Your task to perform on an android device: Open Google Maps and go to "Timeline" Image 0: 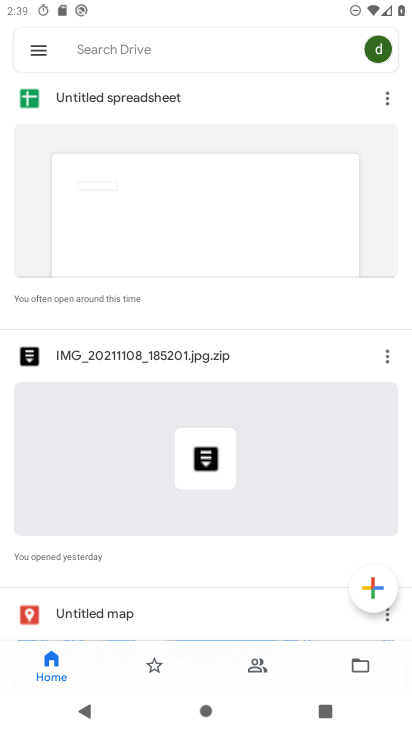
Step 0: press home button
Your task to perform on an android device: Open Google Maps and go to "Timeline" Image 1: 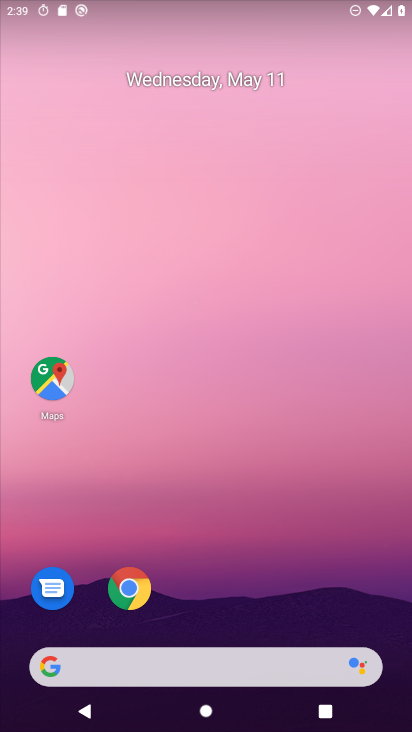
Step 1: click (58, 380)
Your task to perform on an android device: Open Google Maps and go to "Timeline" Image 2: 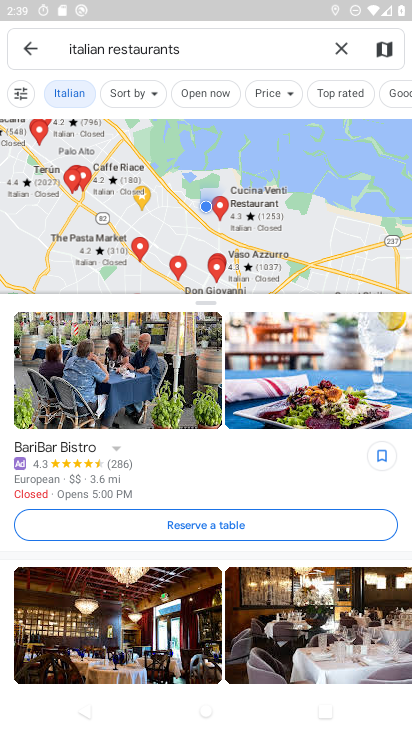
Step 2: click (341, 53)
Your task to perform on an android device: Open Google Maps and go to "Timeline" Image 3: 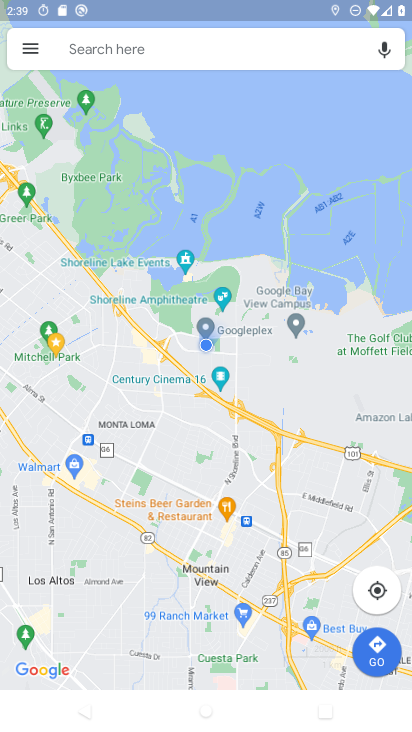
Step 3: click (33, 46)
Your task to perform on an android device: Open Google Maps and go to "Timeline" Image 4: 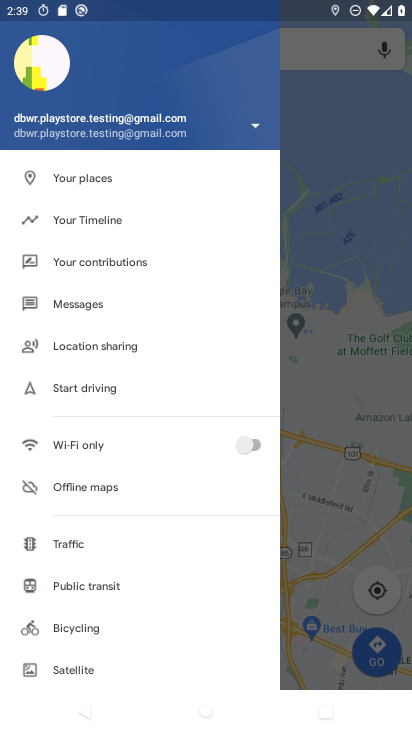
Step 4: click (101, 214)
Your task to perform on an android device: Open Google Maps and go to "Timeline" Image 5: 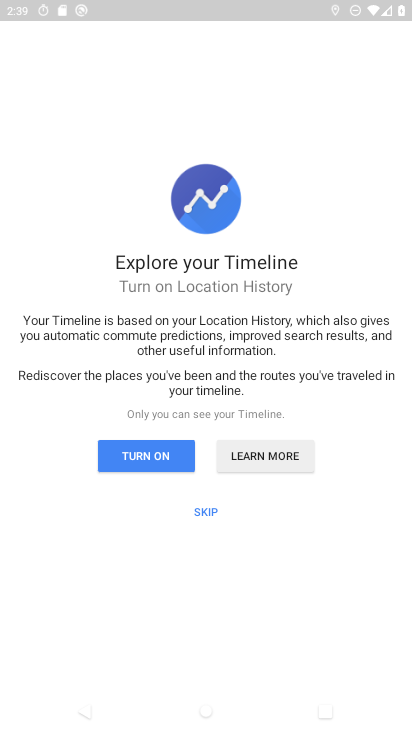
Step 5: click (159, 451)
Your task to perform on an android device: Open Google Maps and go to "Timeline" Image 6: 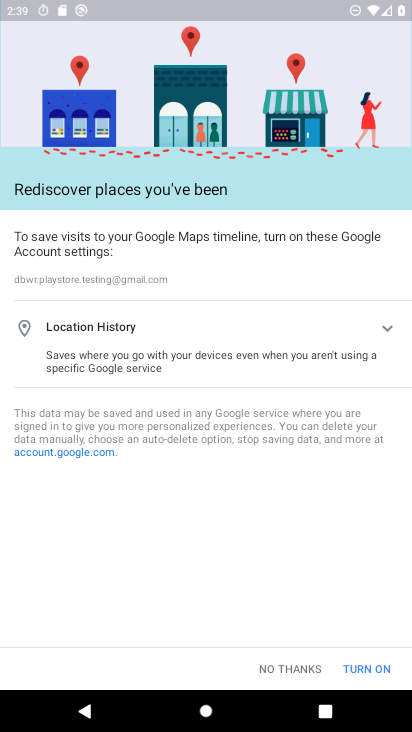
Step 6: click (378, 667)
Your task to perform on an android device: Open Google Maps and go to "Timeline" Image 7: 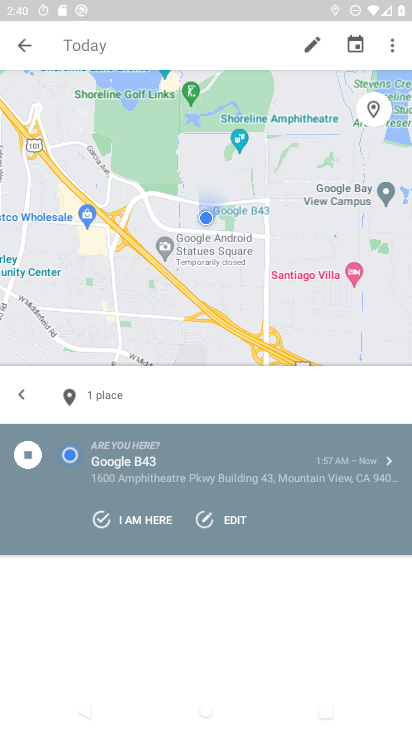
Step 7: task complete